Your task to perform on an android device: Open Chrome and go to settings Image 0: 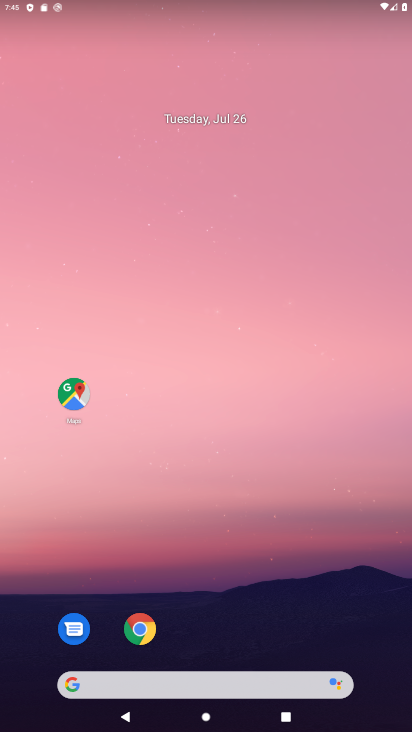
Step 0: press home button
Your task to perform on an android device: Open Chrome and go to settings Image 1: 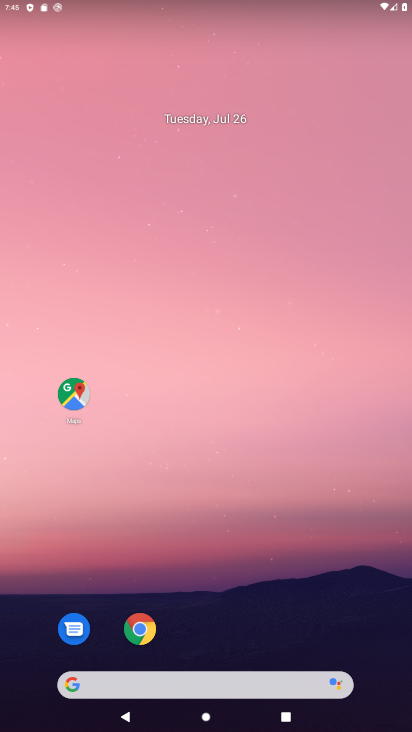
Step 1: click (141, 625)
Your task to perform on an android device: Open Chrome and go to settings Image 2: 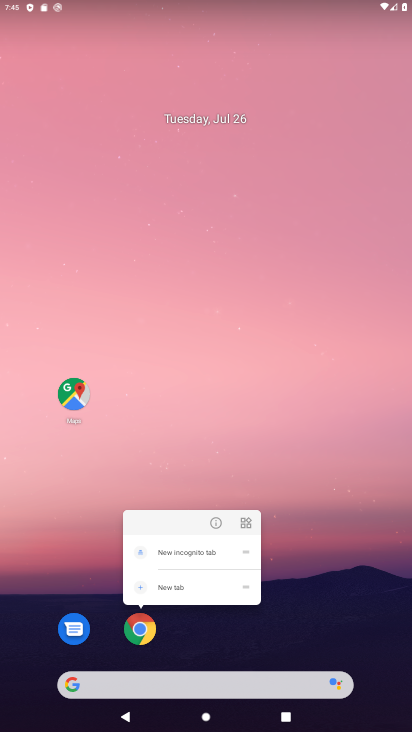
Step 2: click (190, 638)
Your task to perform on an android device: Open Chrome and go to settings Image 3: 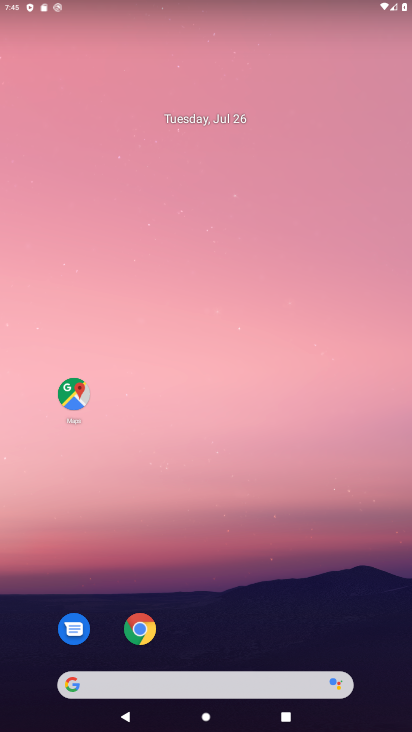
Step 3: click (133, 625)
Your task to perform on an android device: Open Chrome and go to settings Image 4: 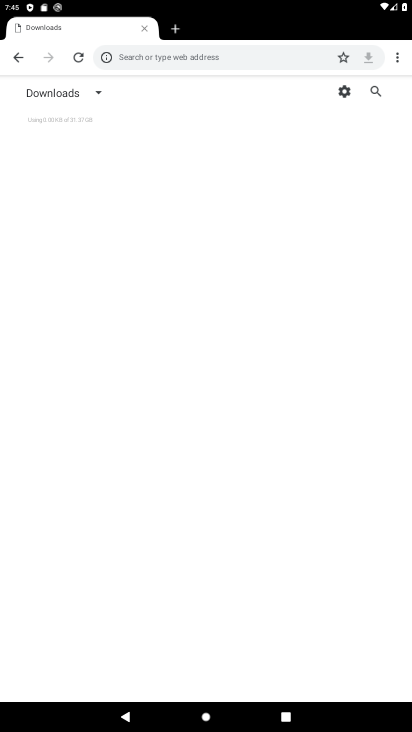
Step 4: click (394, 58)
Your task to perform on an android device: Open Chrome and go to settings Image 5: 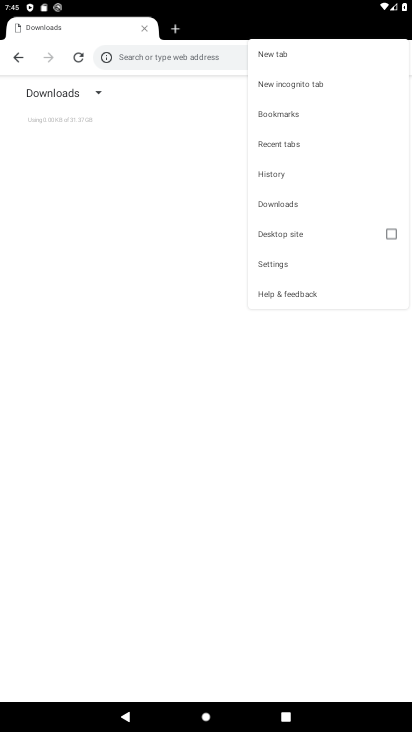
Step 5: click (290, 262)
Your task to perform on an android device: Open Chrome and go to settings Image 6: 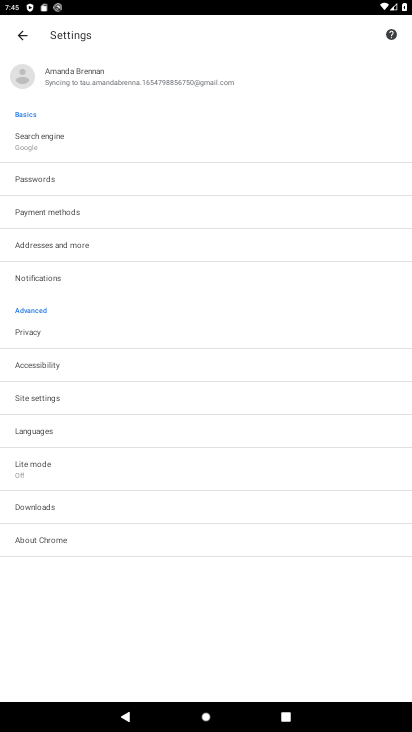
Step 6: task complete